Your task to perform on an android device: Open settings Image 0: 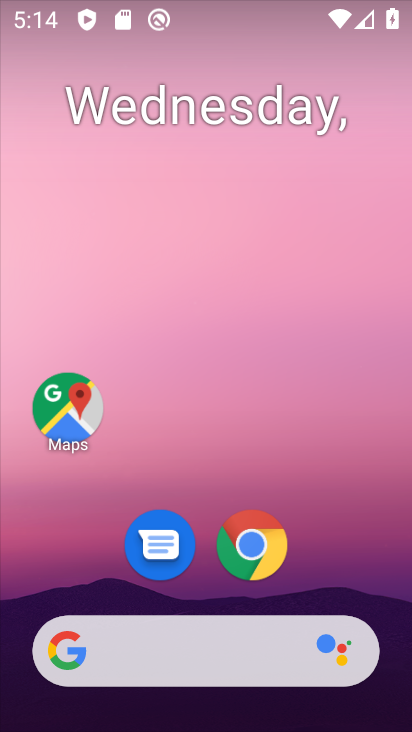
Step 0: drag from (199, 532) to (281, 13)
Your task to perform on an android device: Open settings Image 1: 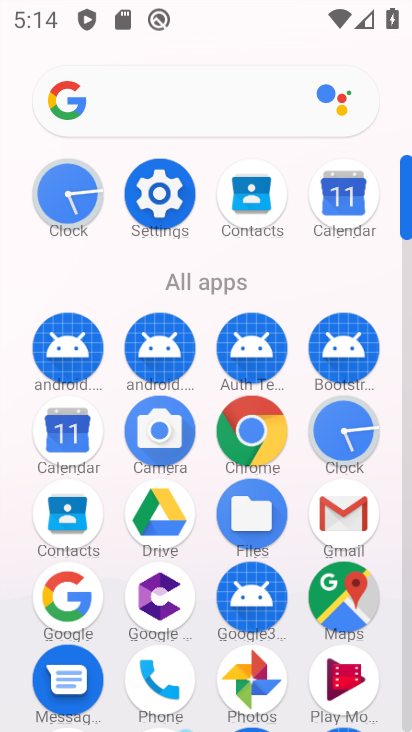
Step 1: click (167, 199)
Your task to perform on an android device: Open settings Image 2: 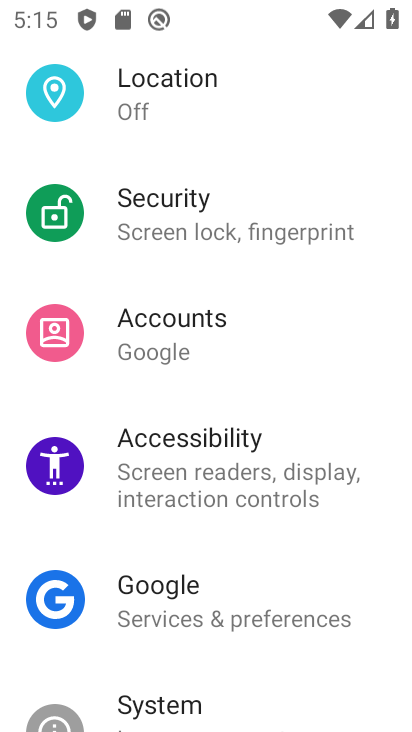
Step 2: task complete